Your task to perform on an android device: Search for alienware area 51 on costco, select the first entry, and add it to the cart. Image 0: 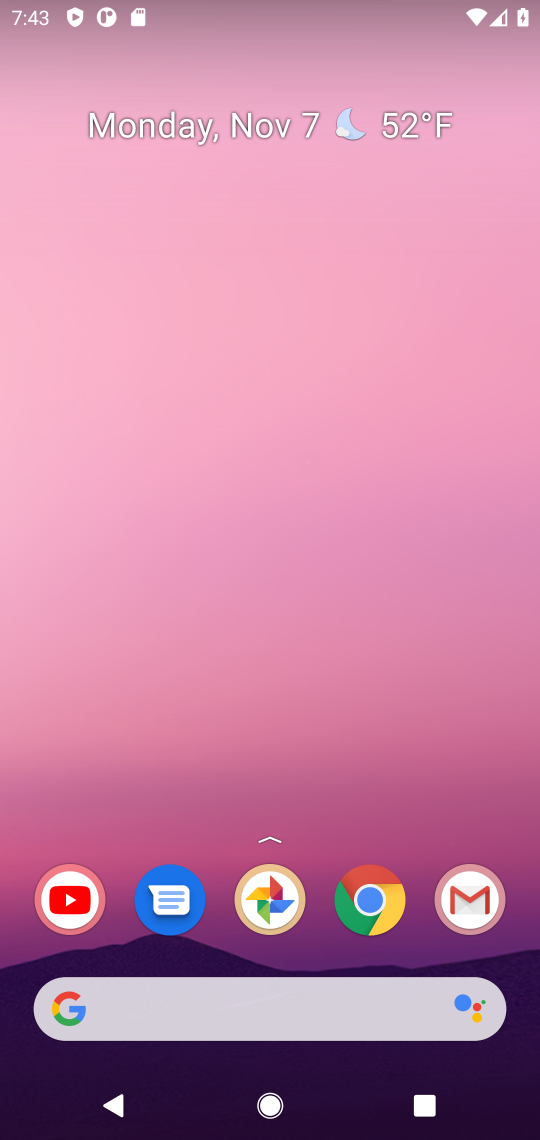
Step 0: click (293, 1008)
Your task to perform on an android device: Search for alienware area 51 on costco, select the first entry, and add it to the cart. Image 1: 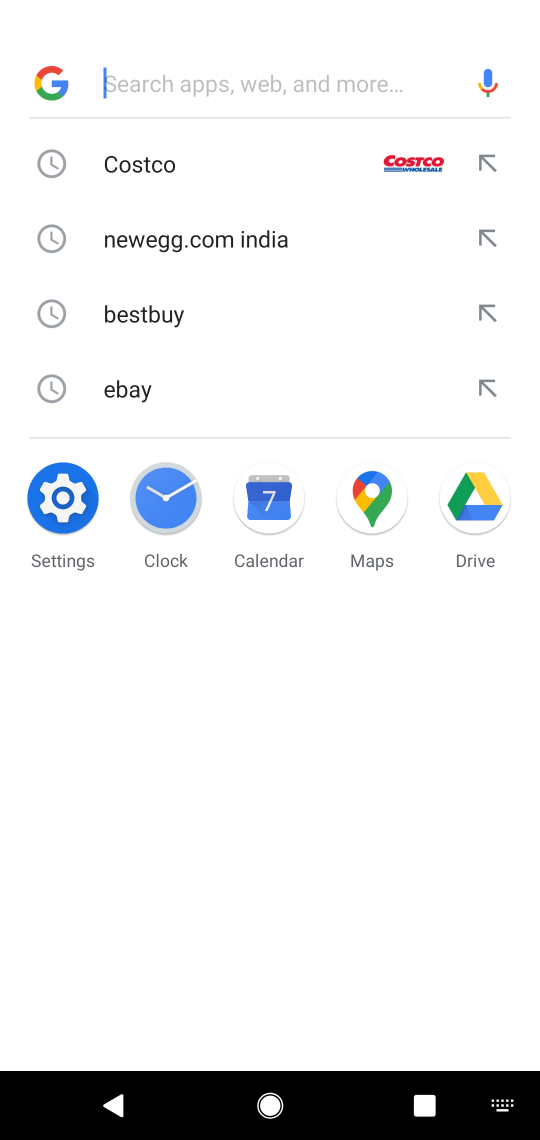
Step 1: click (138, 167)
Your task to perform on an android device: Search for alienware area 51 on costco, select the first entry, and add it to the cart. Image 2: 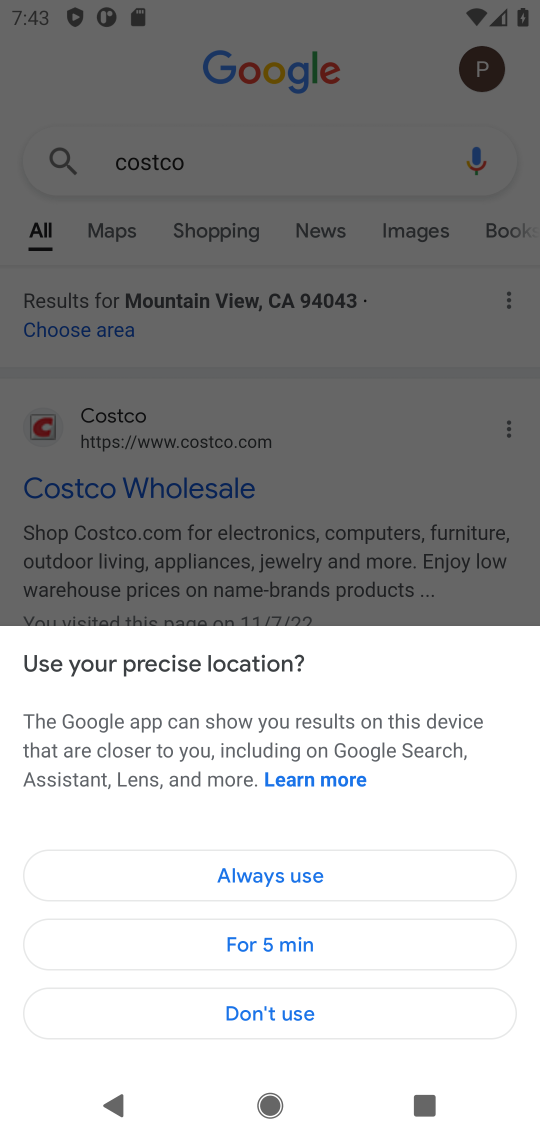
Step 2: click (379, 843)
Your task to perform on an android device: Search for alienware area 51 on costco, select the first entry, and add it to the cart. Image 3: 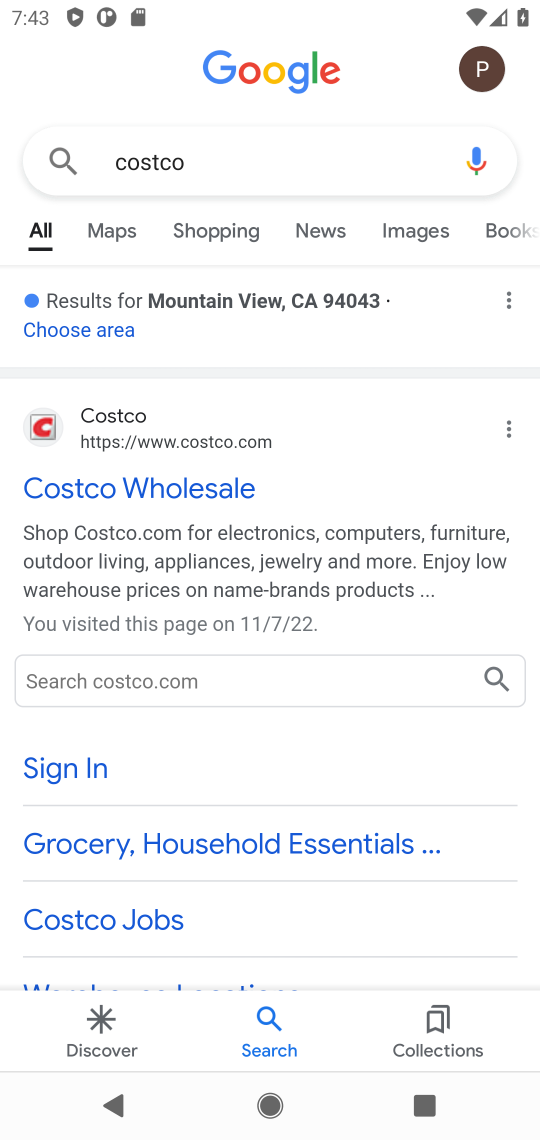
Step 3: click (158, 507)
Your task to perform on an android device: Search for alienware area 51 on costco, select the first entry, and add it to the cart. Image 4: 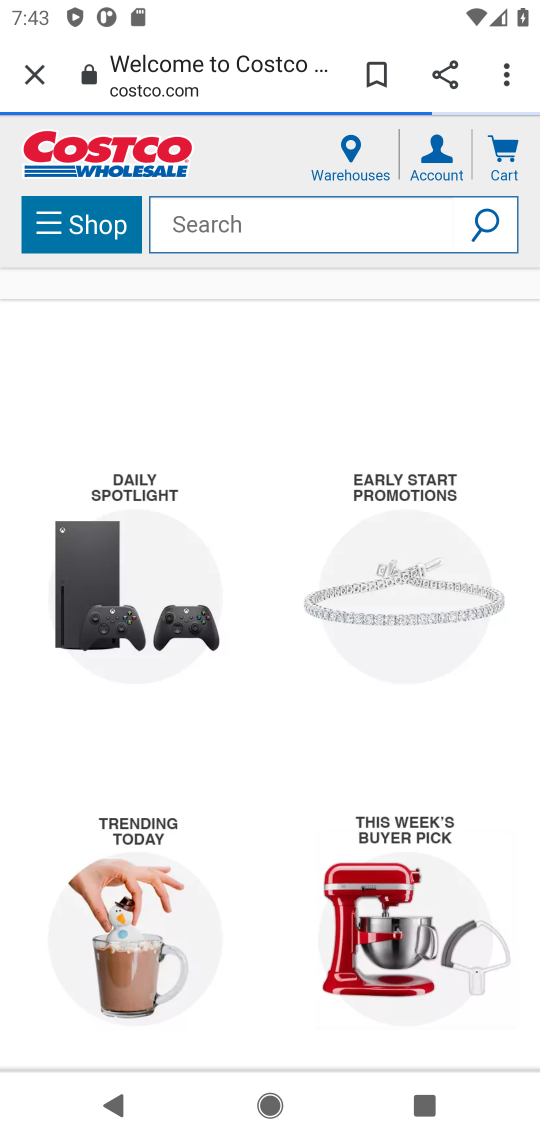
Step 4: click (254, 239)
Your task to perform on an android device: Search for alienware area 51 on costco, select the first entry, and add it to the cart. Image 5: 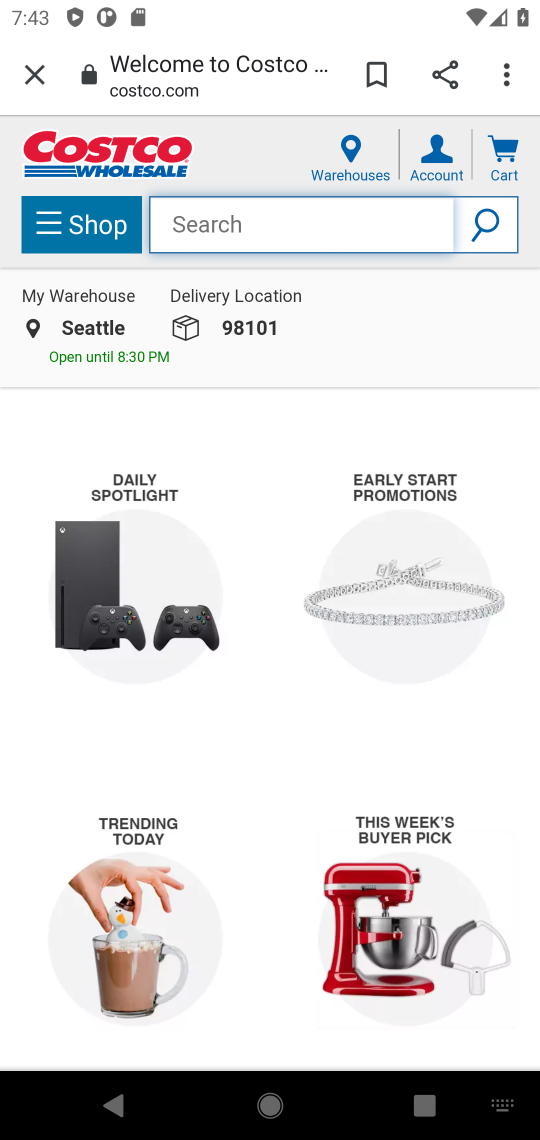
Step 5: type "alienware"
Your task to perform on an android device: Search for alienware area 51 on costco, select the first entry, and add it to the cart. Image 6: 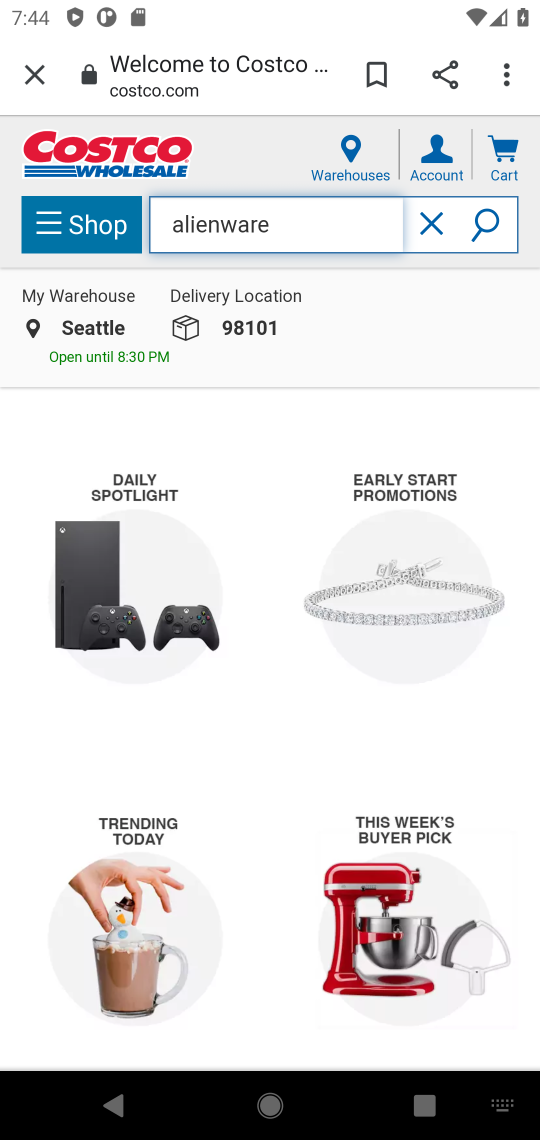
Step 6: click (154, 552)
Your task to perform on an android device: Search for alienware area 51 on costco, select the first entry, and add it to the cart. Image 7: 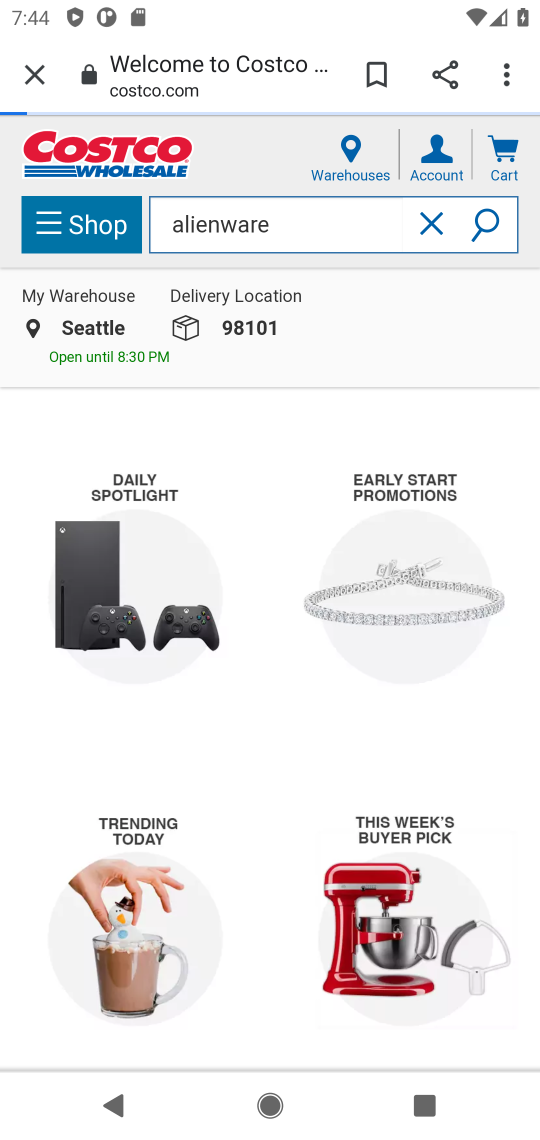
Step 7: task complete